Your task to perform on an android device: Go to calendar. Show me events next week Image 0: 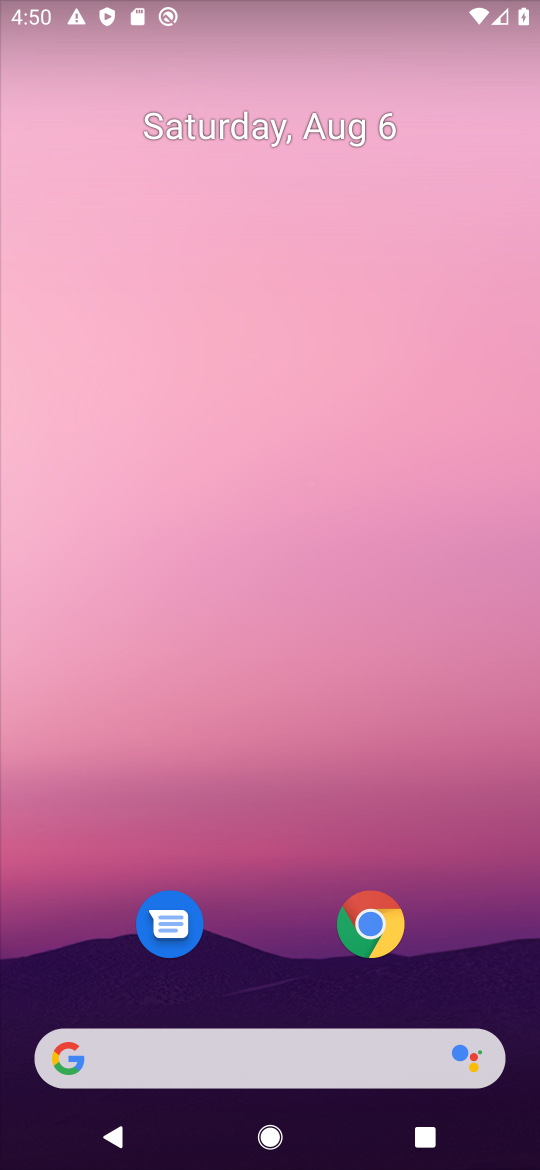
Step 0: drag from (199, 1085) to (237, 95)
Your task to perform on an android device: Go to calendar. Show me events next week Image 1: 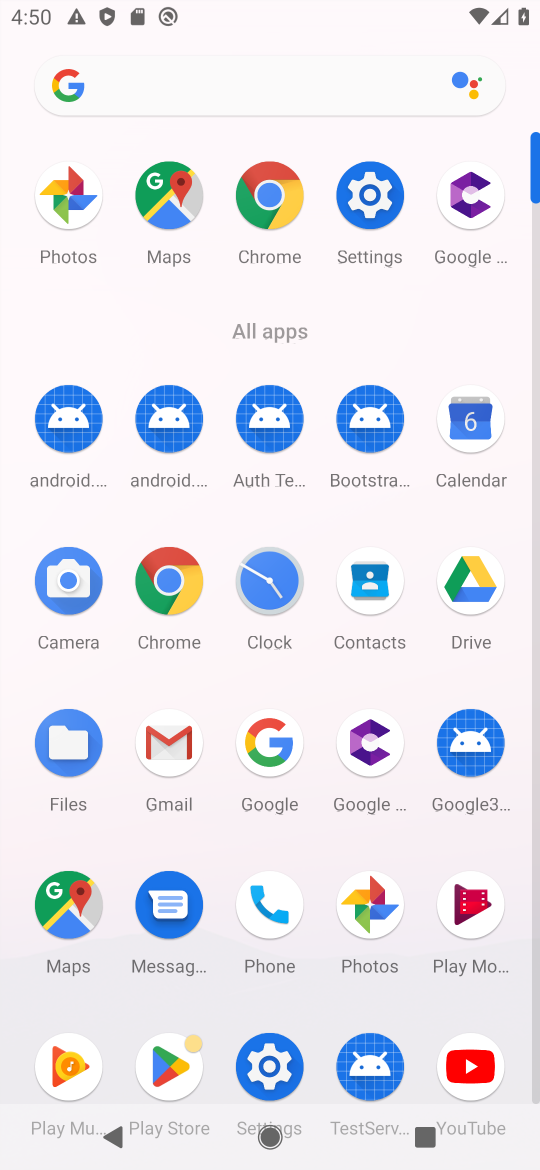
Step 1: click (467, 437)
Your task to perform on an android device: Go to calendar. Show me events next week Image 2: 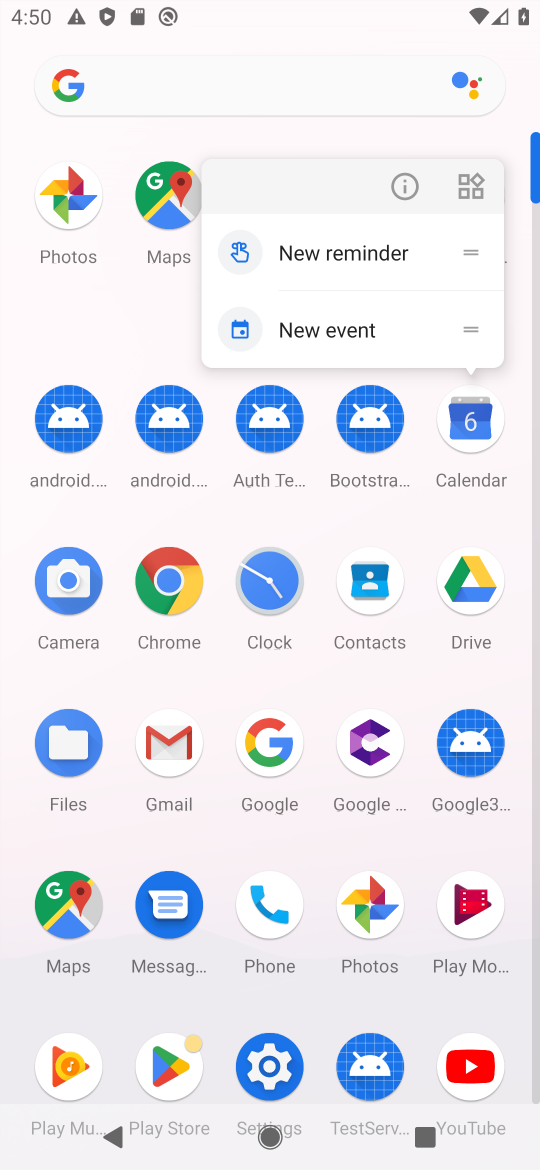
Step 2: click (467, 437)
Your task to perform on an android device: Go to calendar. Show me events next week Image 3: 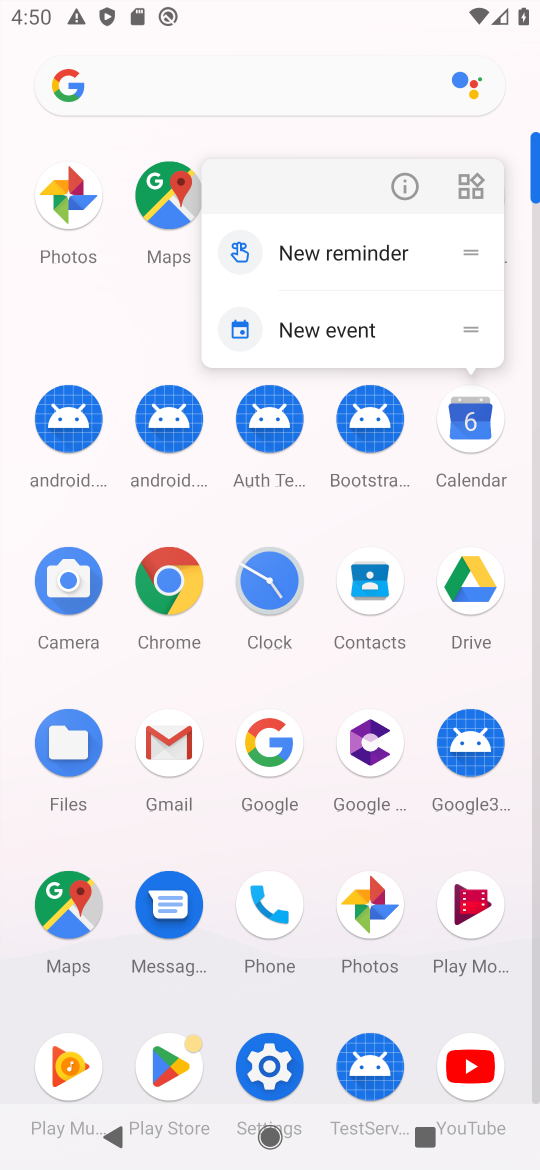
Step 3: click (467, 437)
Your task to perform on an android device: Go to calendar. Show me events next week Image 4: 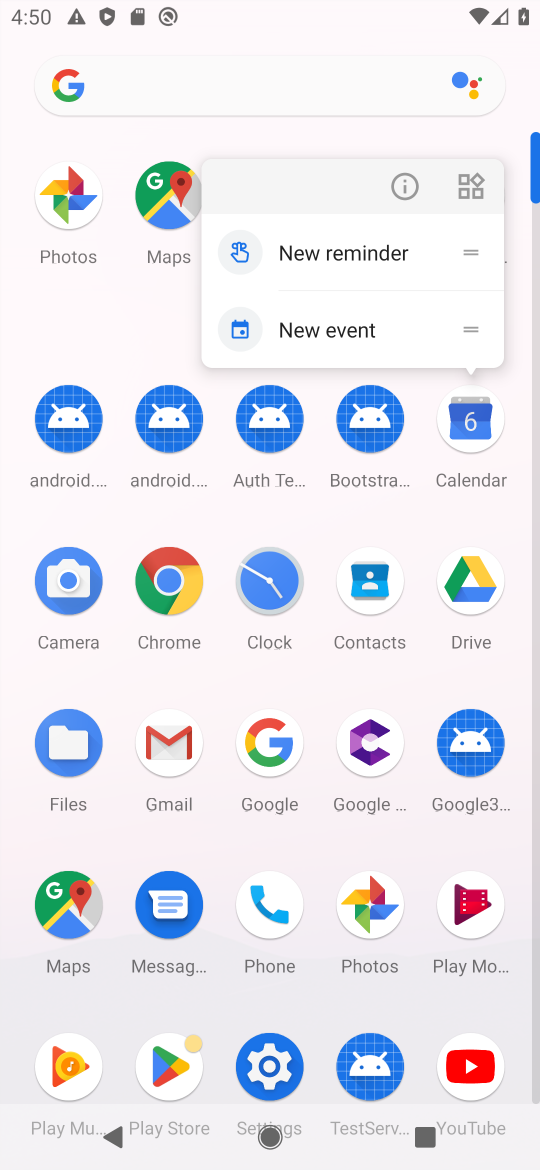
Step 4: click (467, 437)
Your task to perform on an android device: Go to calendar. Show me events next week Image 5: 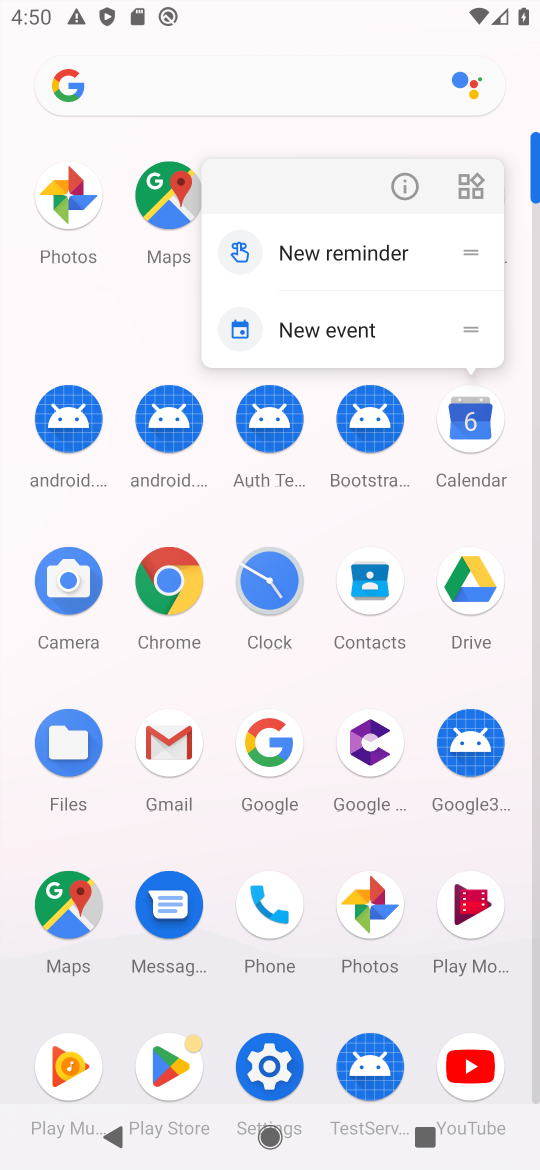
Step 5: click (467, 437)
Your task to perform on an android device: Go to calendar. Show me events next week Image 6: 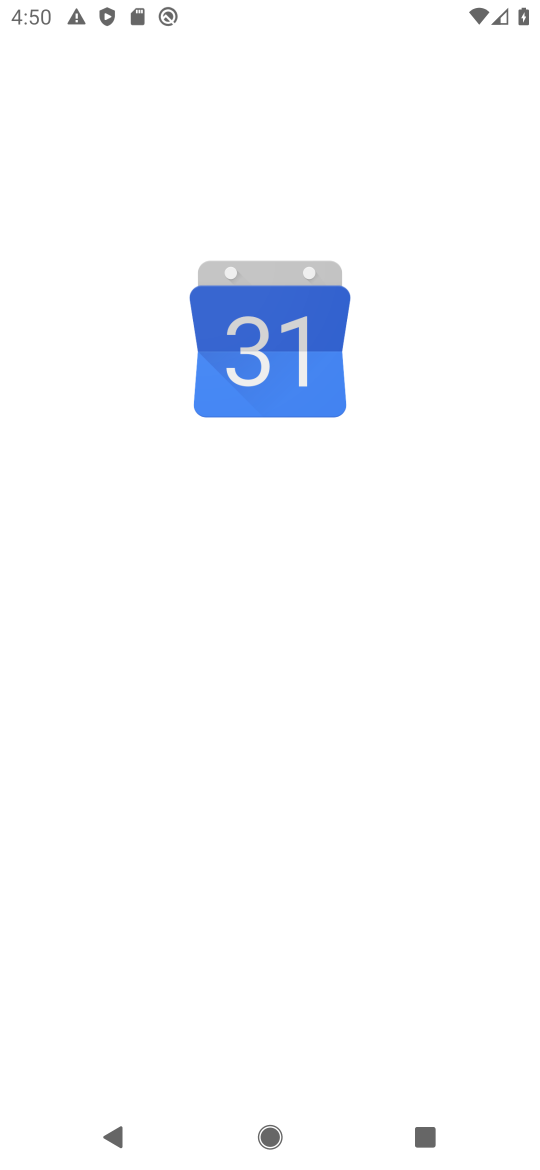
Step 6: click (476, 476)
Your task to perform on an android device: Go to calendar. Show me events next week Image 7: 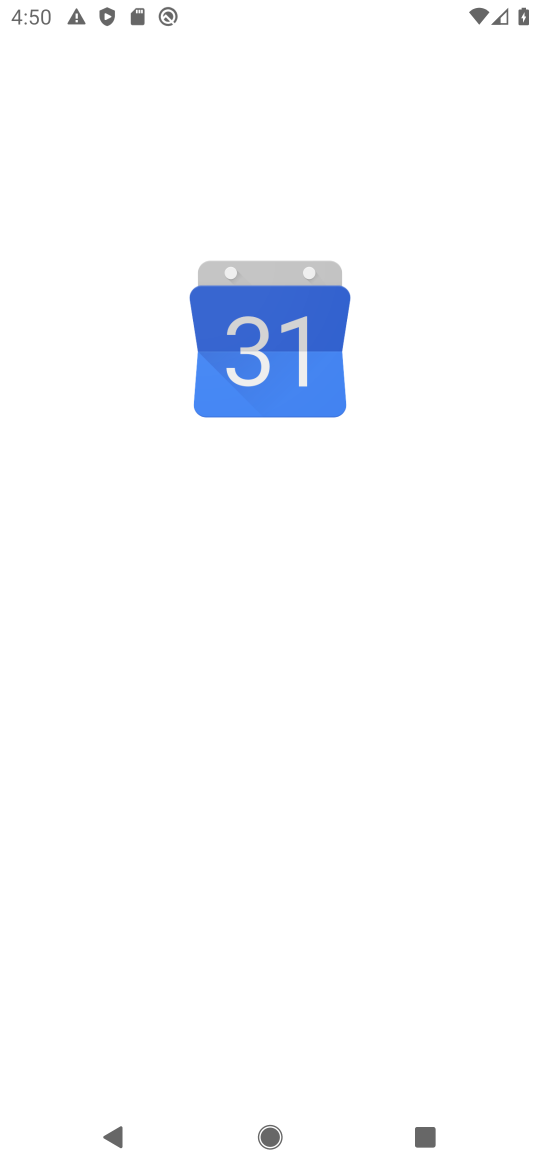
Step 7: click (476, 476)
Your task to perform on an android device: Go to calendar. Show me events next week Image 8: 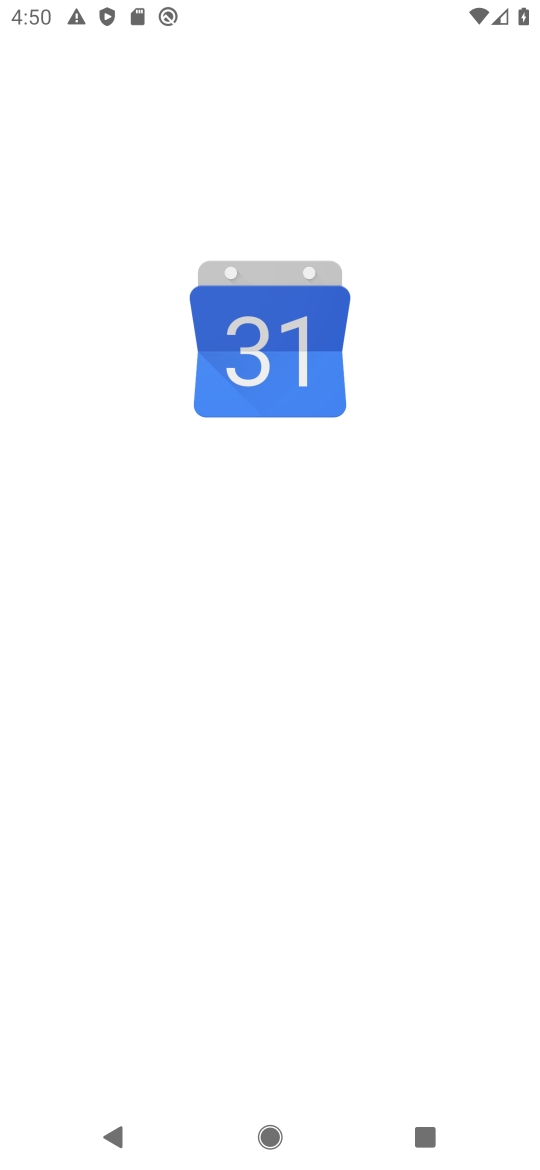
Step 8: click (476, 476)
Your task to perform on an android device: Go to calendar. Show me events next week Image 9: 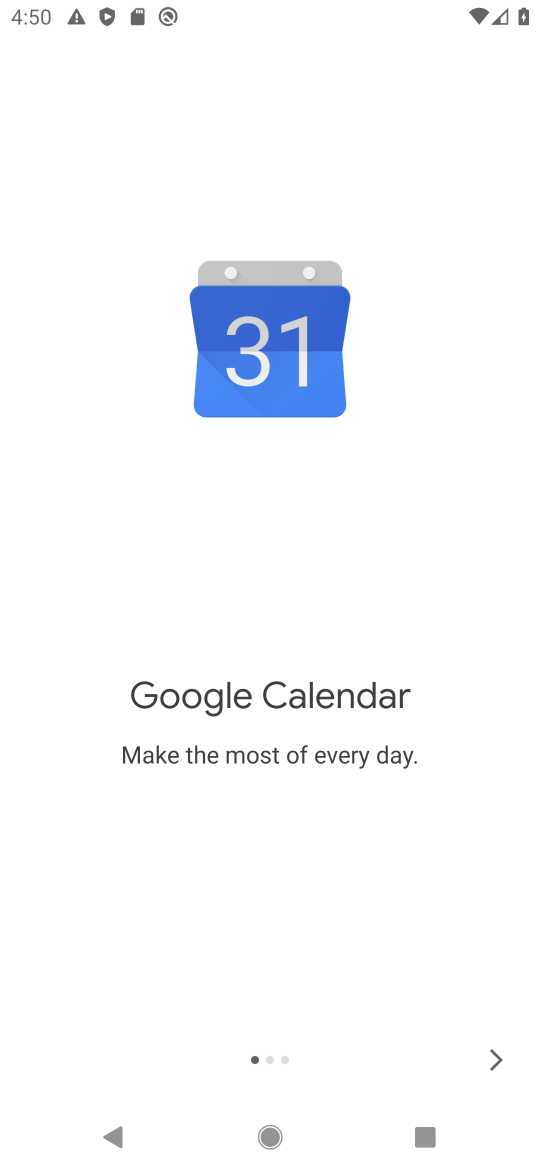
Step 9: click (499, 1057)
Your task to perform on an android device: Go to calendar. Show me events next week Image 10: 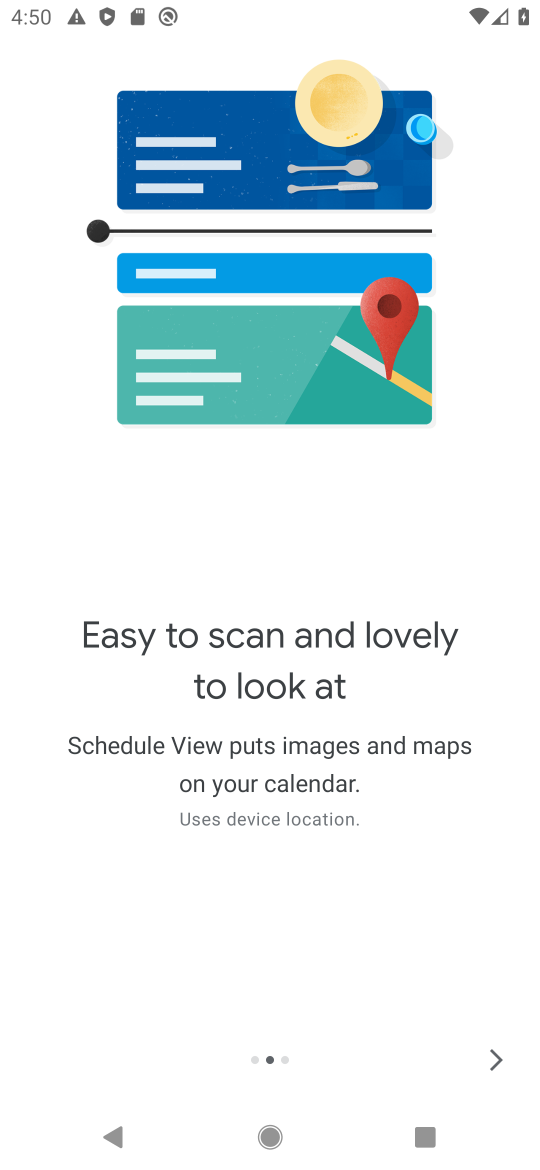
Step 10: click (499, 1057)
Your task to perform on an android device: Go to calendar. Show me events next week Image 11: 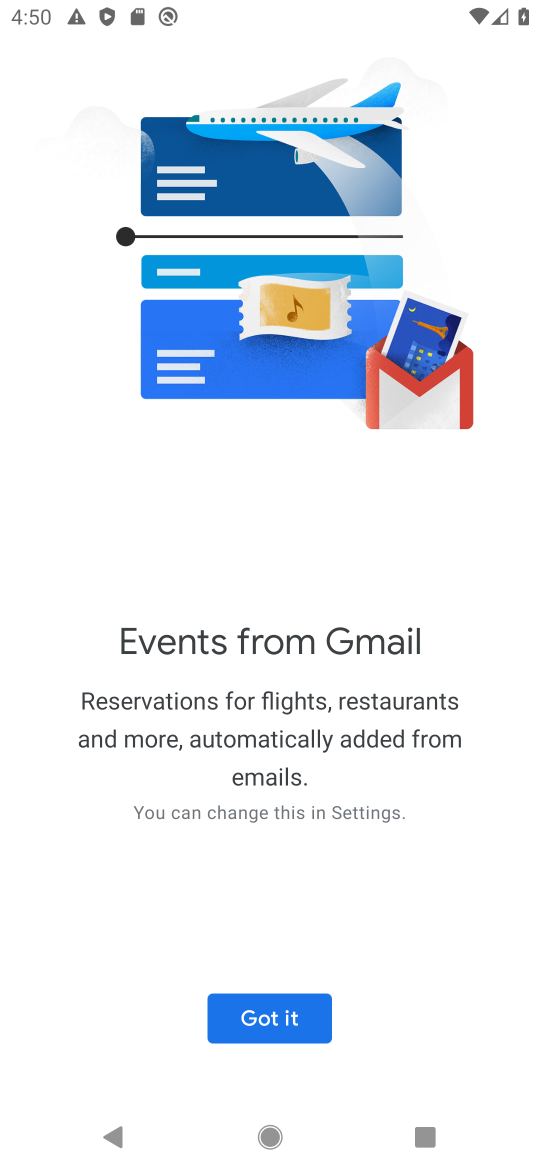
Step 11: click (283, 1009)
Your task to perform on an android device: Go to calendar. Show me events next week Image 12: 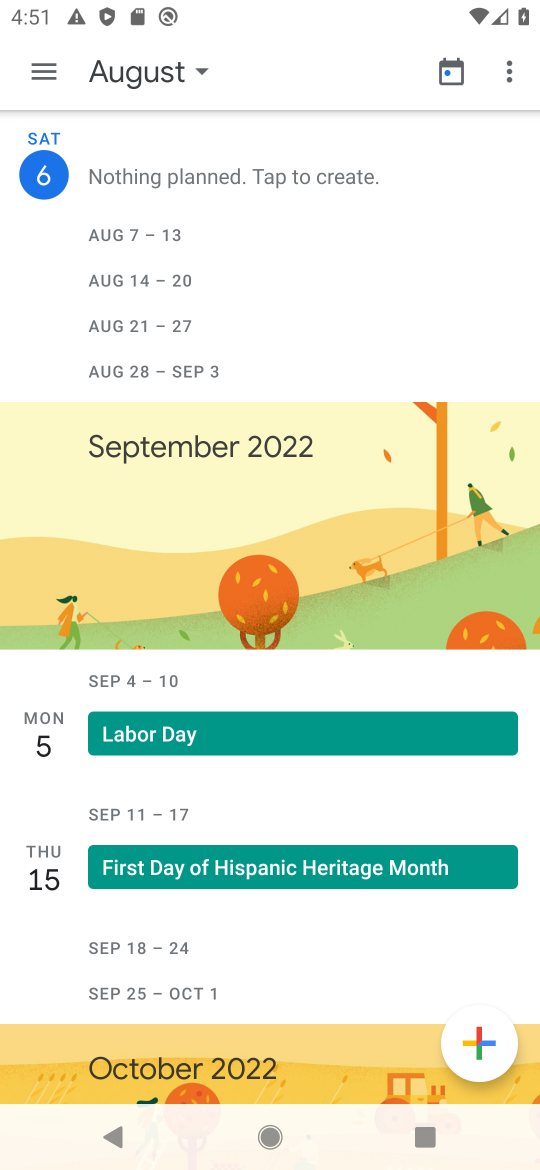
Step 12: click (159, 65)
Your task to perform on an android device: Go to calendar. Show me events next week Image 13: 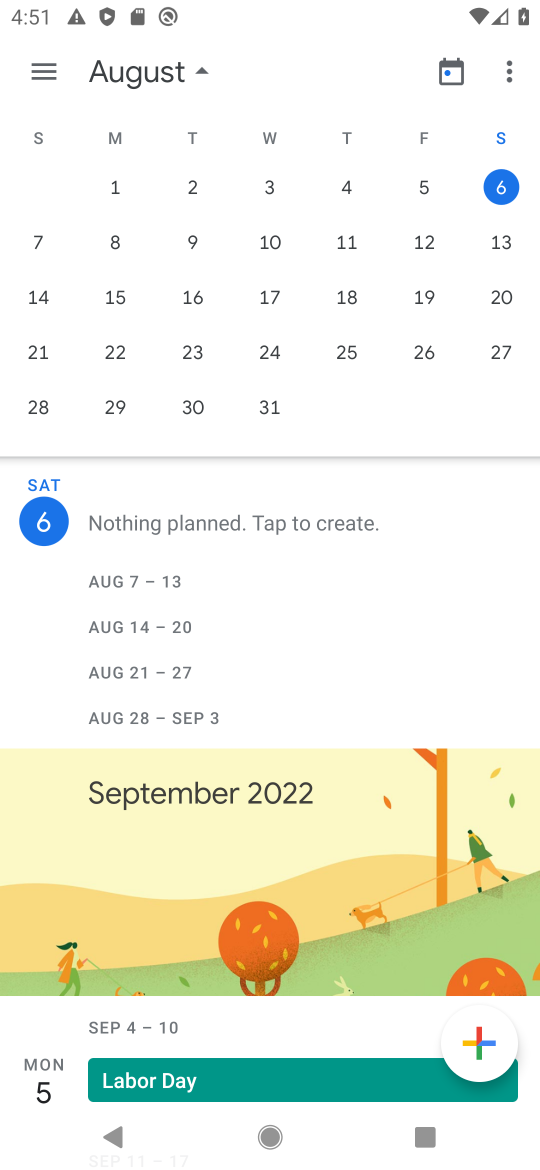
Step 13: drag from (504, 334) to (216, 311)
Your task to perform on an android device: Go to calendar. Show me events next week Image 14: 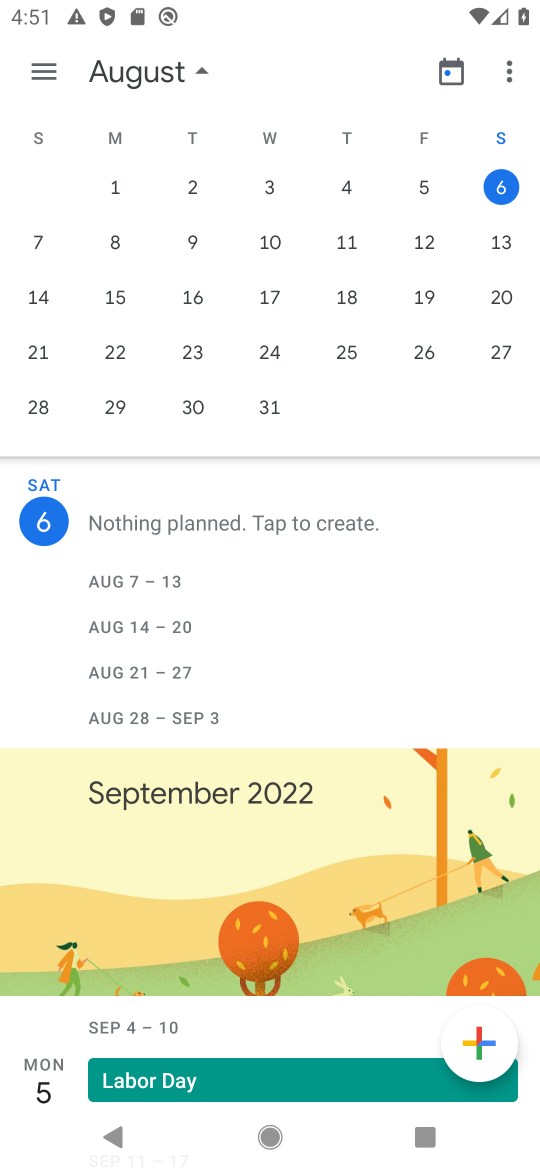
Step 14: drag from (515, 370) to (0, 327)
Your task to perform on an android device: Go to calendar. Show me events next week Image 15: 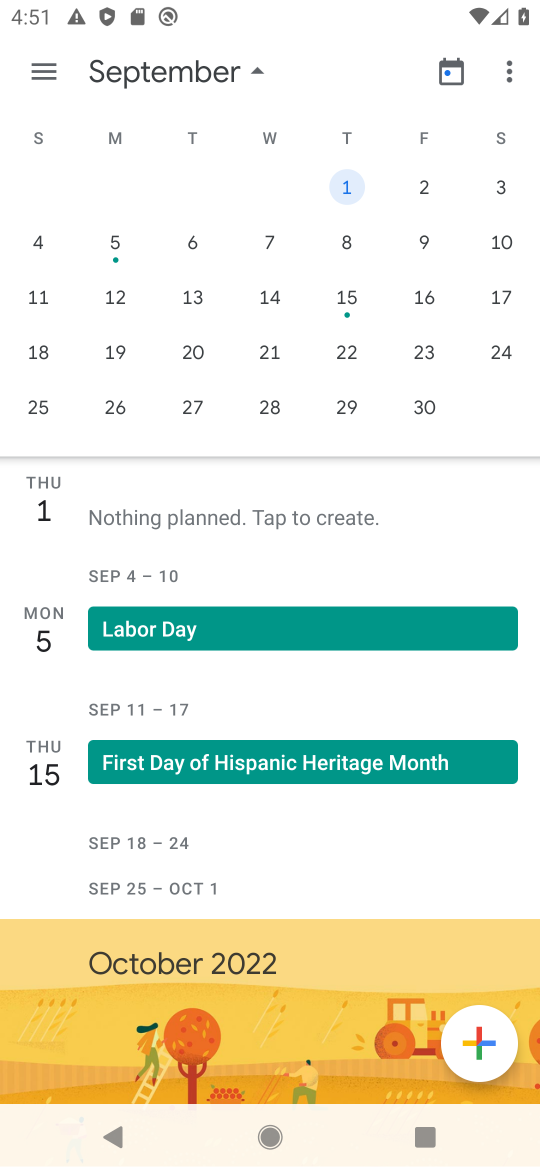
Step 15: click (38, 243)
Your task to perform on an android device: Go to calendar. Show me events next week Image 16: 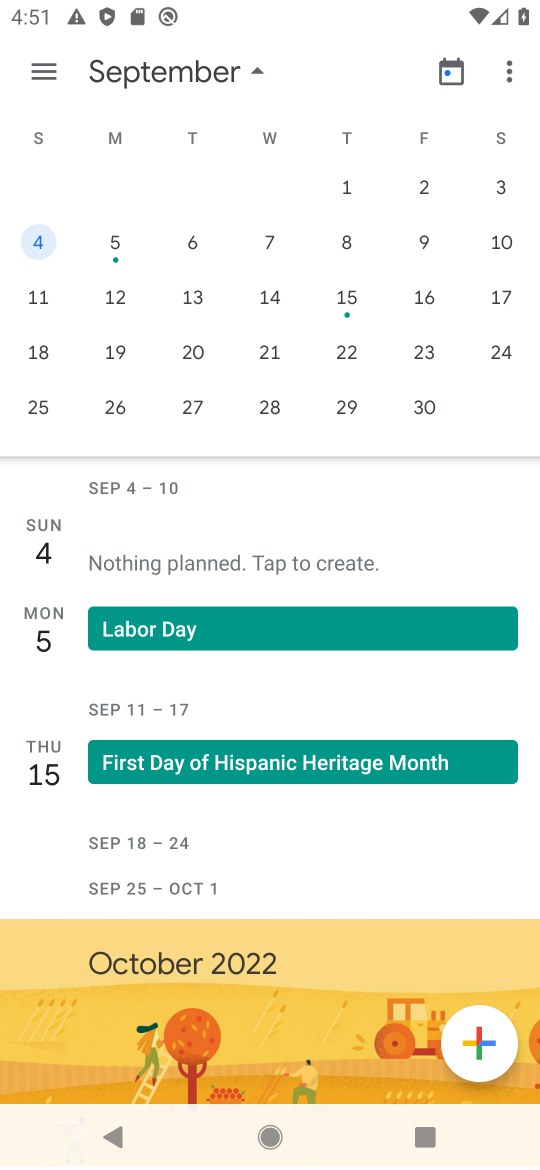
Step 16: task complete